Your task to perform on an android device: Open Youtube and go to the subscriptions tab Image 0: 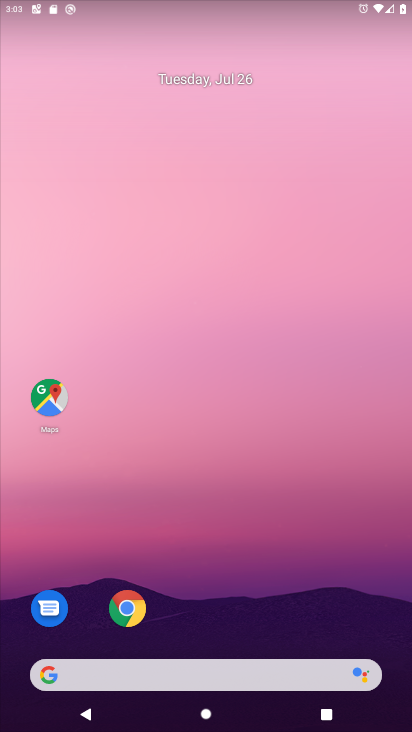
Step 0: drag from (313, 637) to (344, 18)
Your task to perform on an android device: Open Youtube and go to the subscriptions tab Image 1: 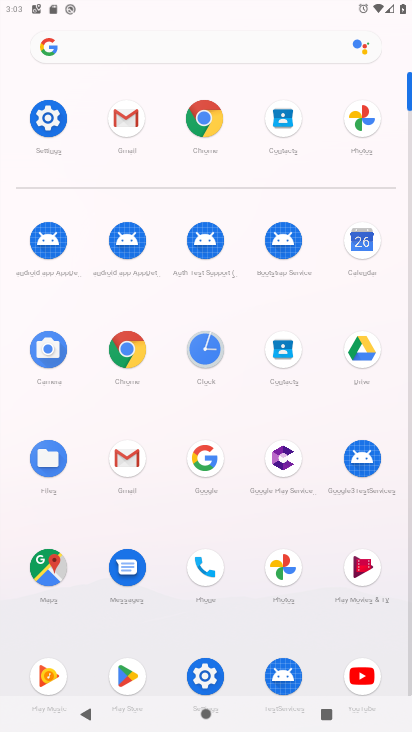
Step 1: click (364, 669)
Your task to perform on an android device: Open Youtube and go to the subscriptions tab Image 2: 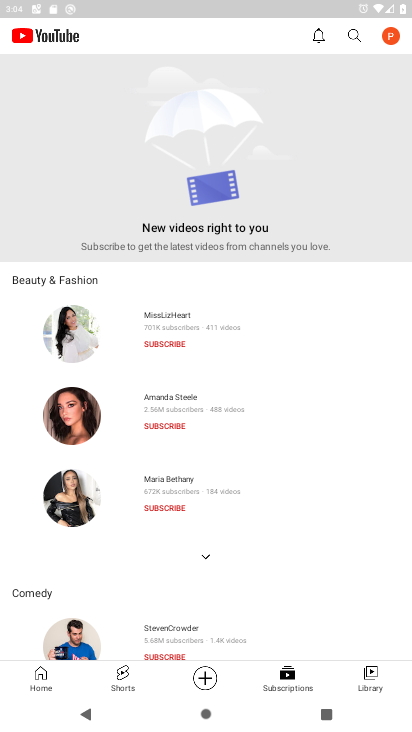
Step 2: task complete